Your task to perform on an android device: Open accessibility settings Image 0: 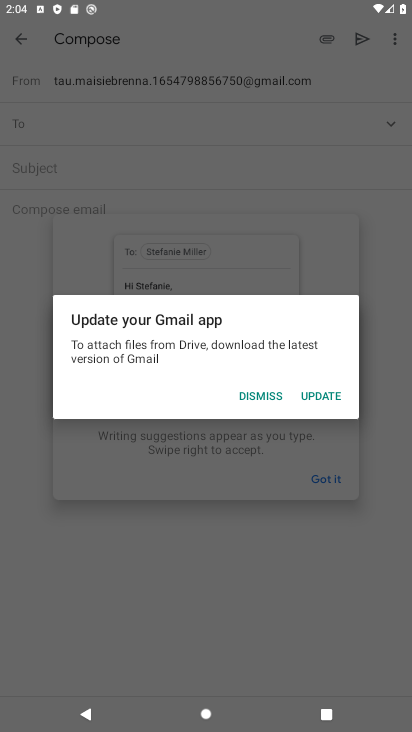
Step 0: click (254, 390)
Your task to perform on an android device: Open accessibility settings Image 1: 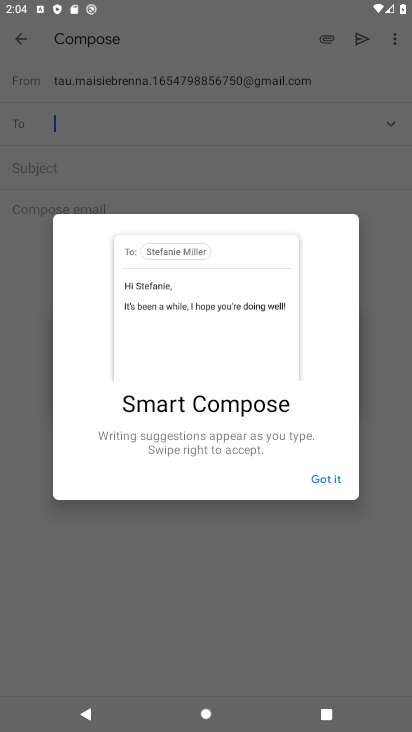
Step 1: click (328, 484)
Your task to perform on an android device: Open accessibility settings Image 2: 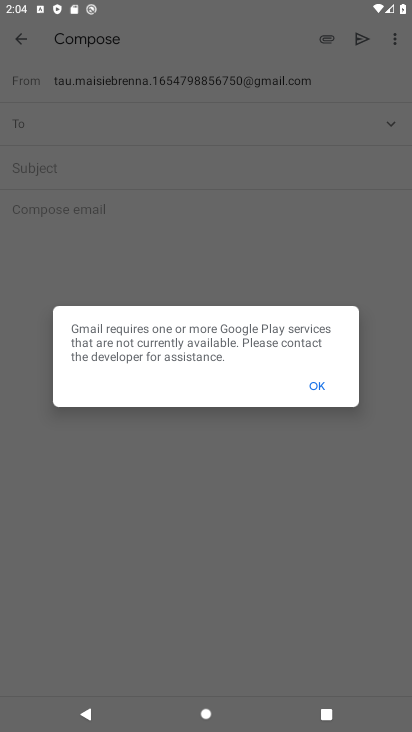
Step 2: click (316, 387)
Your task to perform on an android device: Open accessibility settings Image 3: 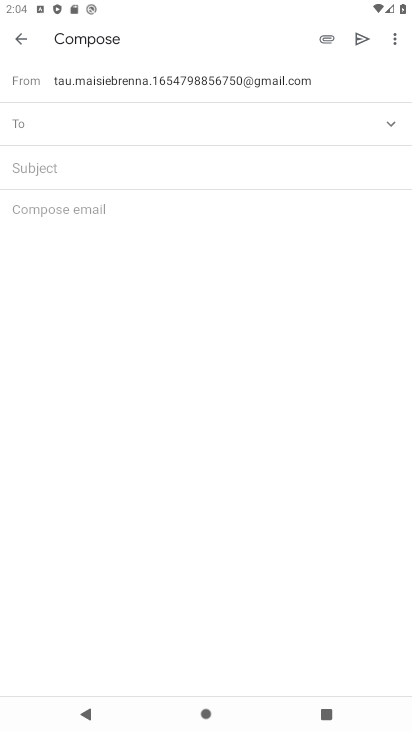
Step 3: task complete